Your task to perform on an android device: Open Youtube and go to "Your channel" Image 0: 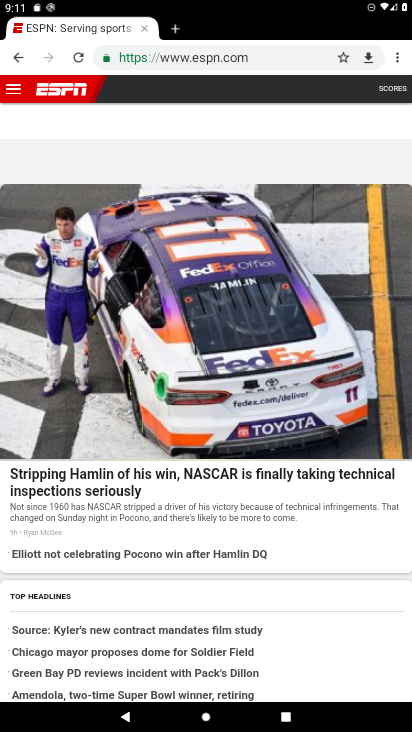
Step 0: press home button
Your task to perform on an android device: Open Youtube and go to "Your channel" Image 1: 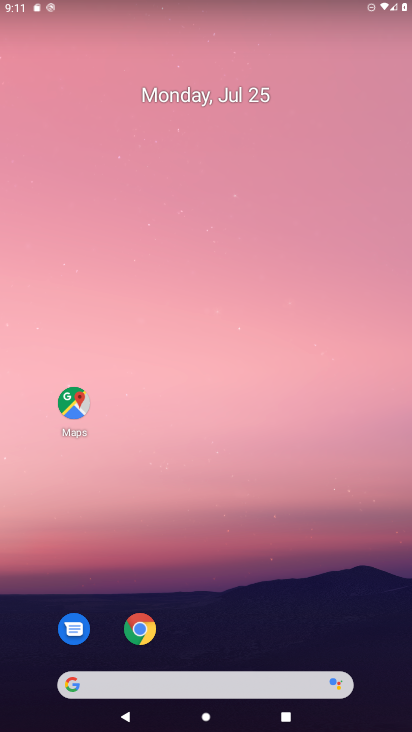
Step 1: drag from (298, 651) to (313, 7)
Your task to perform on an android device: Open Youtube and go to "Your channel" Image 2: 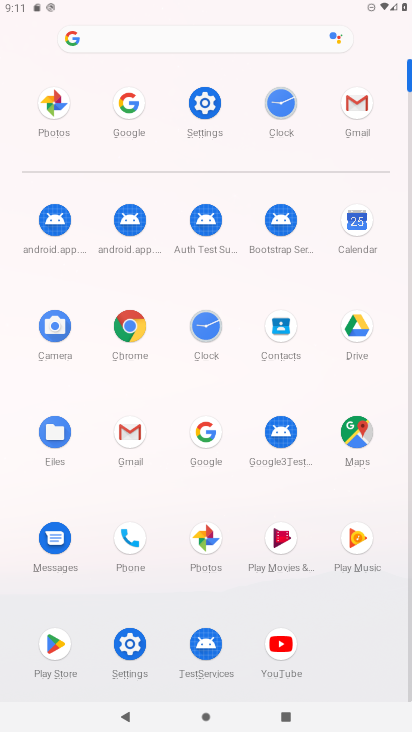
Step 2: click (275, 645)
Your task to perform on an android device: Open Youtube and go to "Your channel" Image 3: 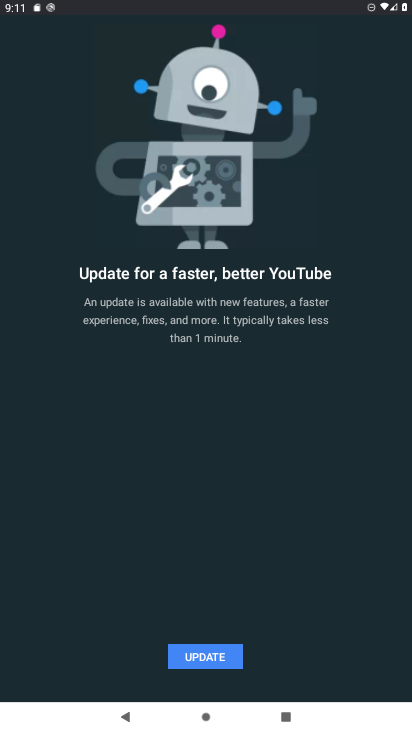
Step 3: click (204, 638)
Your task to perform on an android device: Open Youtube and go to "Your channel" Image 4: 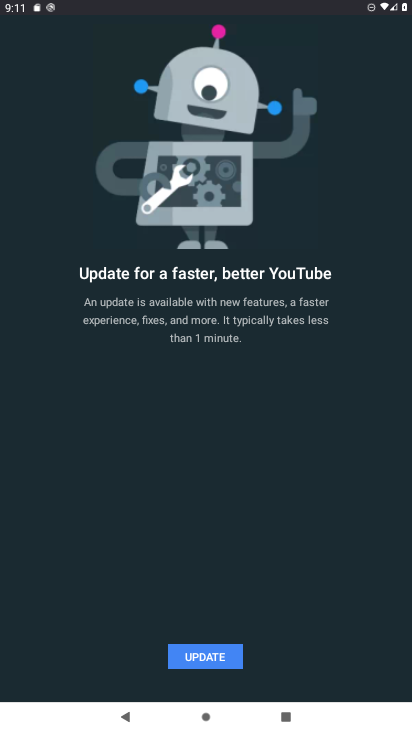
Step 4: click (202, 654)
Your task to perform on an android device: Open Youtube and go to "Your channel" Image 5: 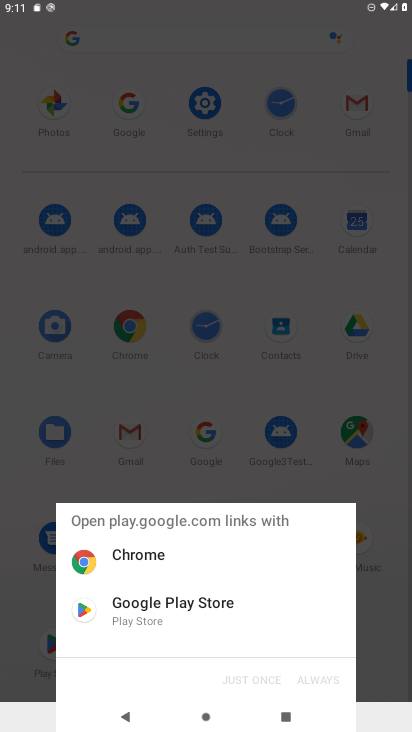
Step 5: click (164, 612)
Your task to perform on an android device: Open Youtube and go to "Your channel" Image 6: 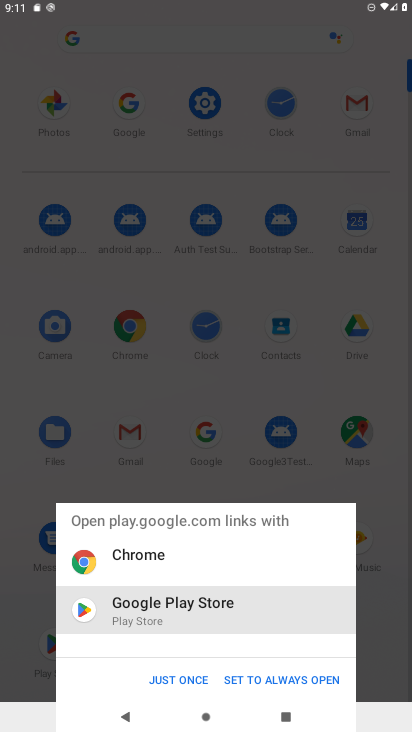
Step 6: click (191, 676)
Your task to perform on an android device: Open Youtube and go to "Your channel" Image 7: 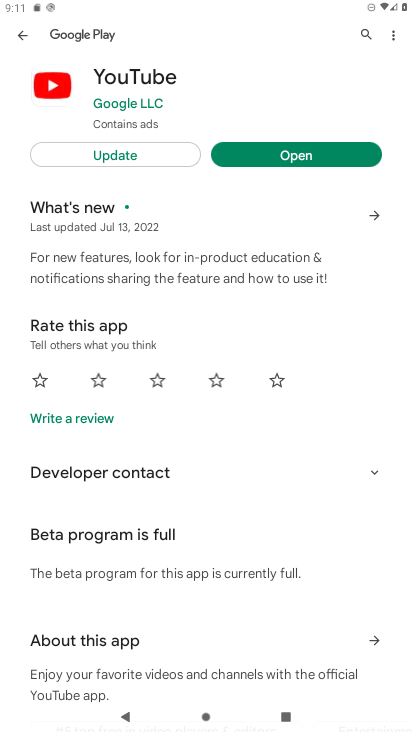
Step 7: click (135, 160)
Your task to perform on an android device: Open Youtube and go to "Your channel" Image 8: 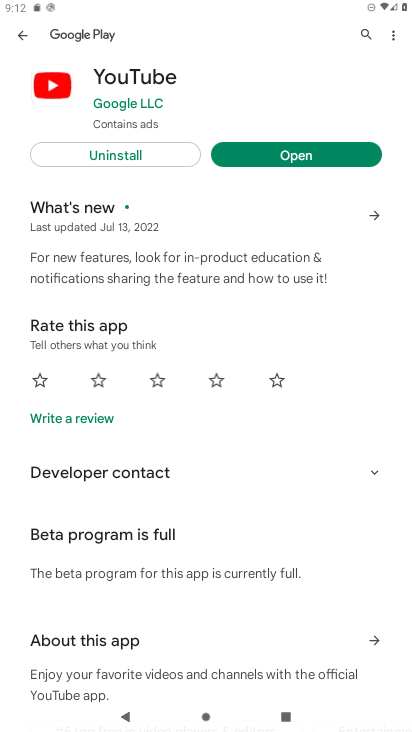
Step 8: click (237, 162)
Your task to perform on an android device: Open Youtube and go to "Your channel" Image 9: 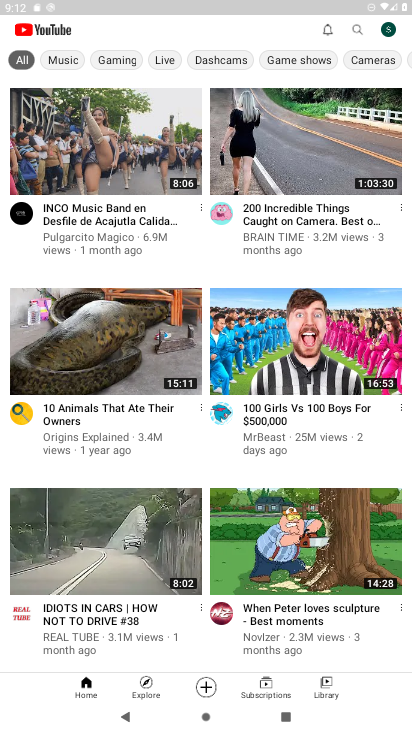
Step 9: click (389, 27)
Your task to perform on an android device: Open Youtube and go to "Your channel" Image 10: 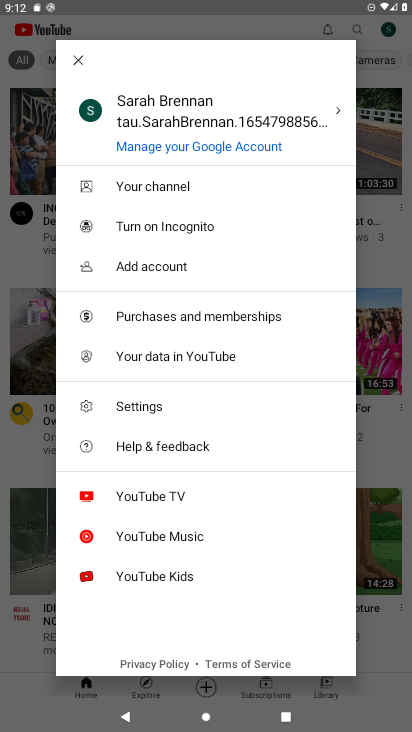
Step 10: click (131, 187)
Your task to perform on an android device: Open Youtube and go to "Your channel" Image 11: 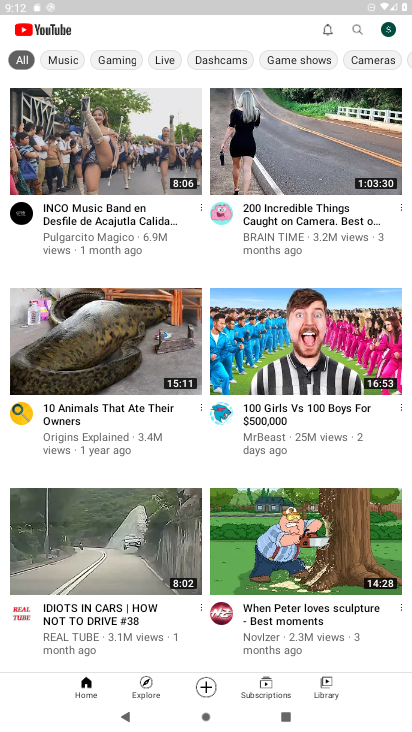
Step 11: click (392, 31)
Your task to perform on an android device: Open Youtube and go to "Your channel" Image 12: 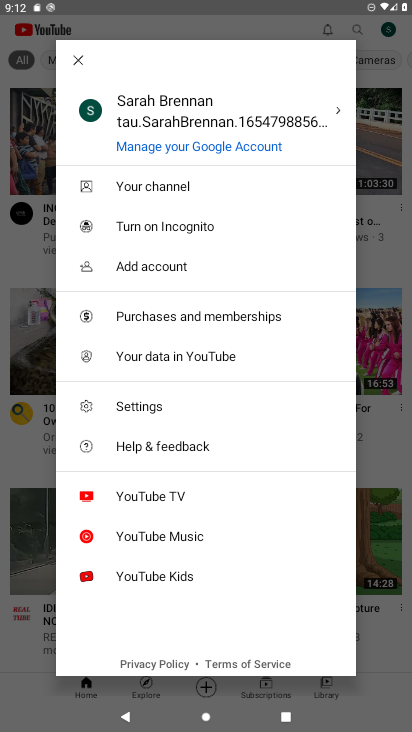
Step 12: click (161, 191)
Your task to perform on an android device: Open Youtube and go to "Your channel" Image 13: 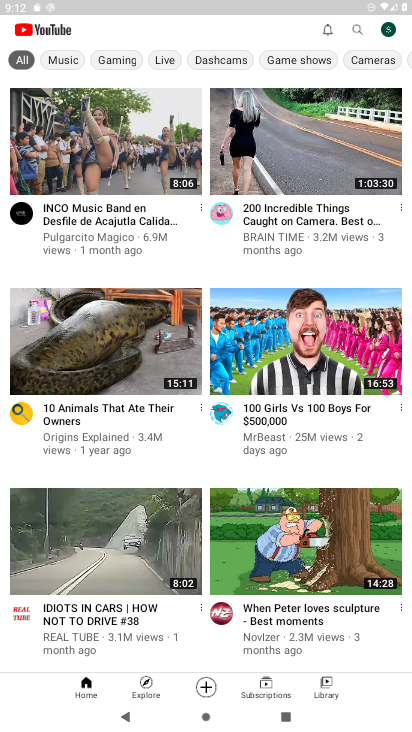
Step 13: click (387, 34)
Your task to perform on an android device: Open Youtube and go to "Your channel" Image 14: 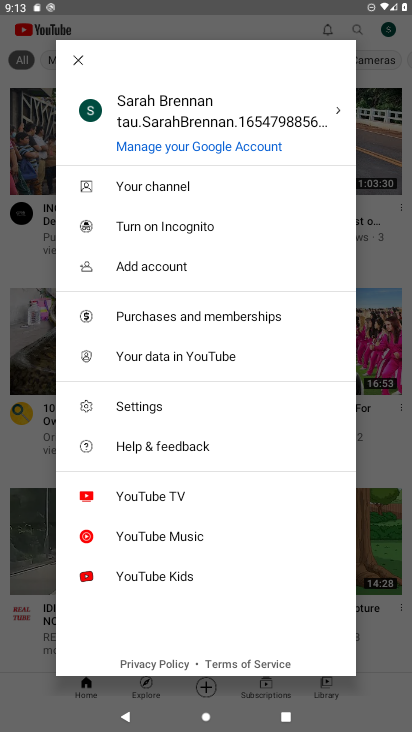
Step 14: click (156, 195)
Your task to perform on an android device: Open Youtube and go to "Your channel" Image 15: 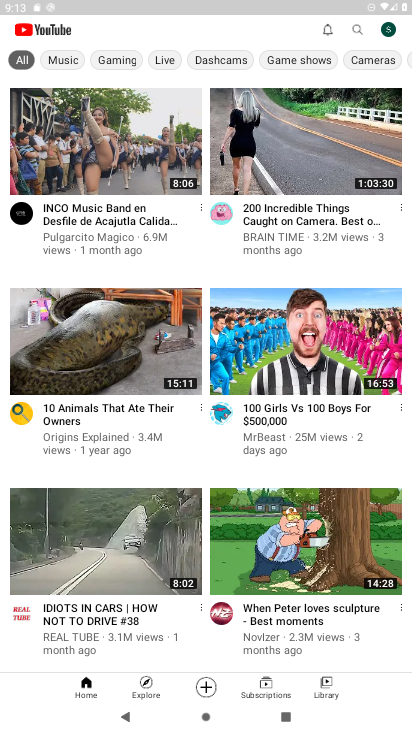
Step 15: task complete